Your task to perform on an android device: Check the news Image 0: 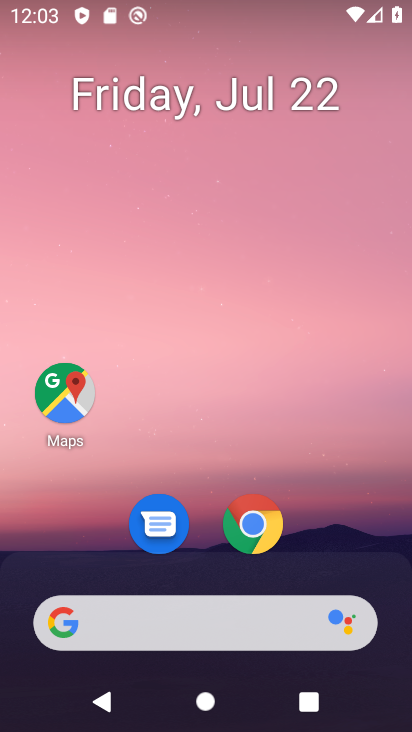
Step 0: press home button
Your task to perform on an android device: Check the news Image 1: 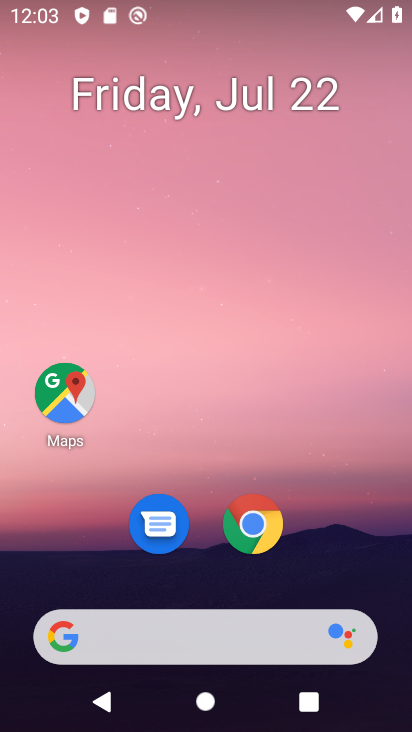
Step 1: click (112, 636)
Your task to perform on an android device: Check the news Image 2: 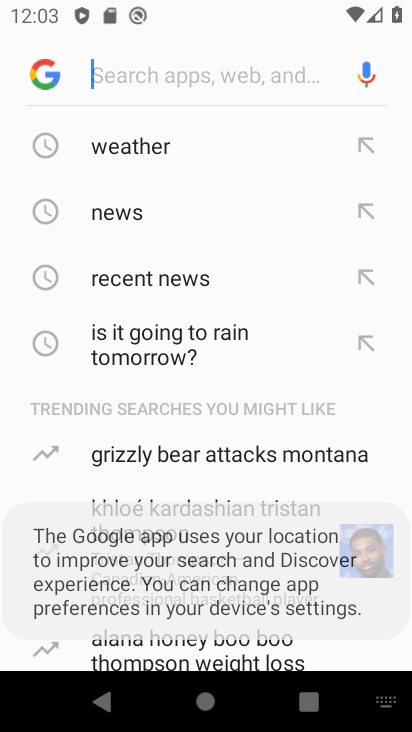
Step 2: click (130, 216)
Your task to perform on an android device: Check the news Image 3: 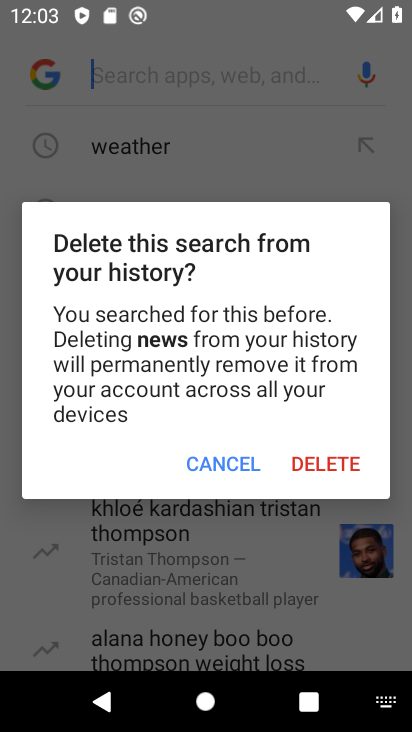
Step 3: click (215, 460)
Your task to perform on an android device: Check the news Image 4: 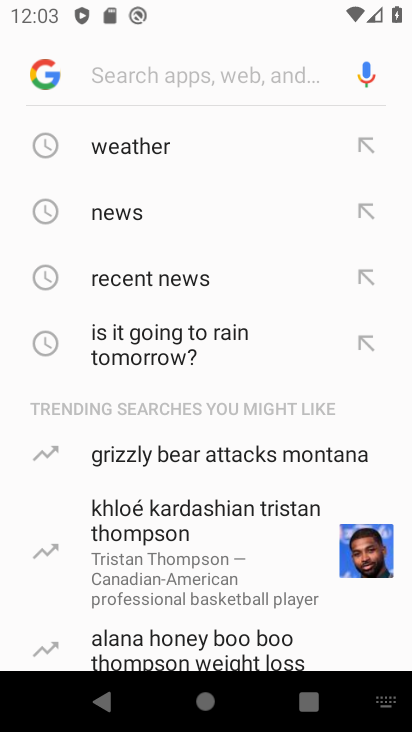
Step 4: click (131, 207)
Your task to perform on an android device: Check the news Image 5: 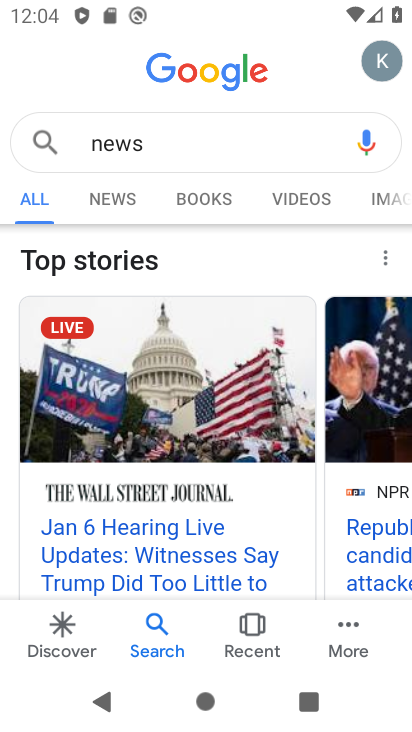
Step 5: click (129, 199)
Your task to perform on an android device: Check the news Image 6: 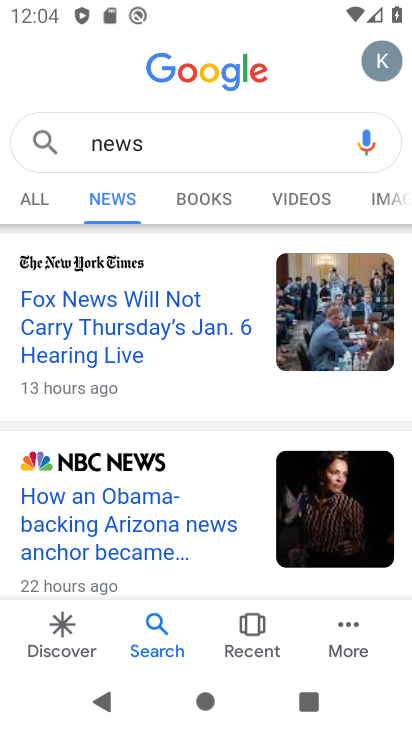
Step 6: task complete